Your task to perform on an android device: turn off smart reply in the gmail app Image 0: 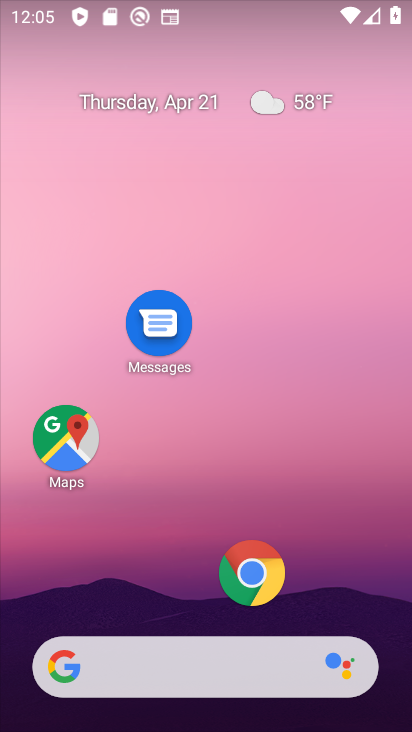
Step 0: drag from (162, 587) to (123, 79)
Your task to perform on an android device: turn off smart reply in the gmail app Image 1: 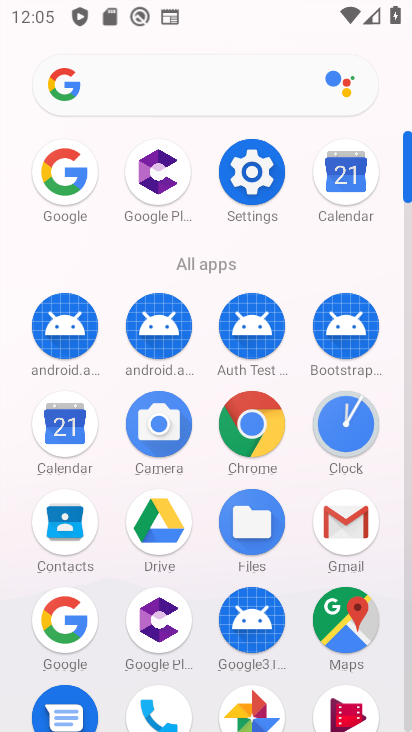
Step 1: click (347, 517)
Your task to perform on an android device: turn off smart reply in the gmail app Image 2: 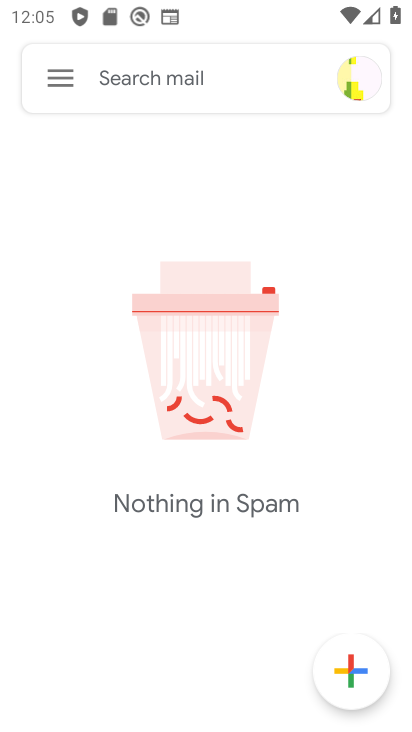
Step 2: click (54, 87)
Your task to perform on an android device: turn off smart reply in the gmail app Image 3: 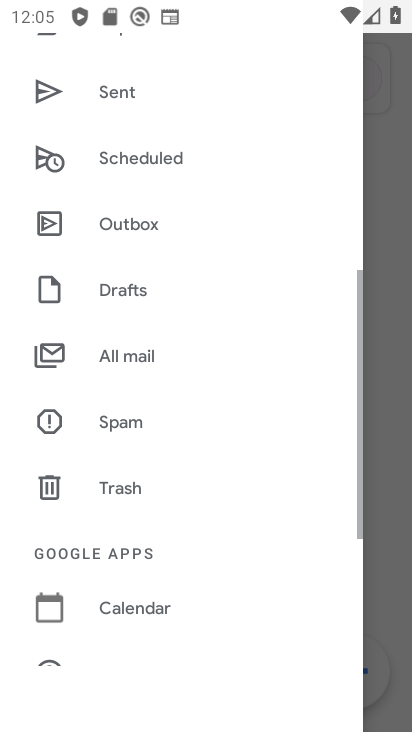
Step 3: drag from (150, 500) to (171, 190)
Your task to perform on an android device: turn off smart reply in the gmail app Image 4: 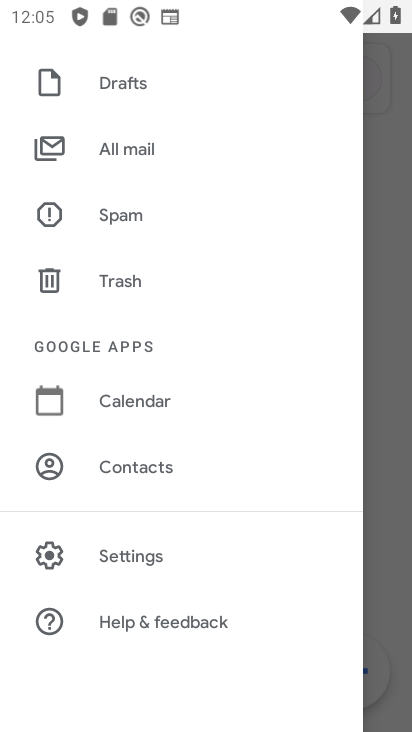
Step 4: click (117, 561)
Your task to perform on an android device: turn off smart reply in the gmail app Image 5: 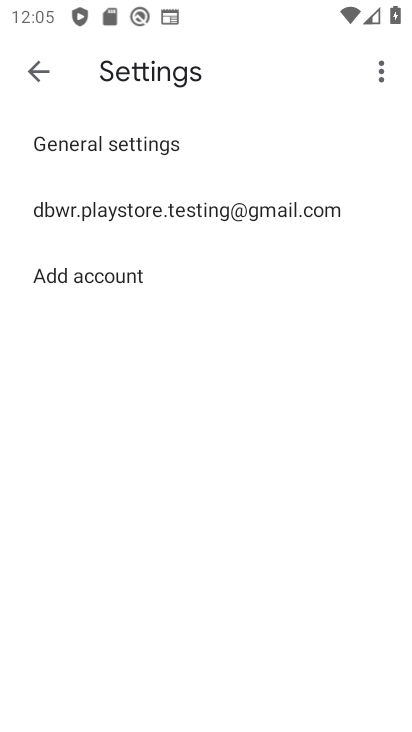
Step 5: click (105, 210)
Your task to perform on an android device: turn off smart reply in the gmail app Image 6: 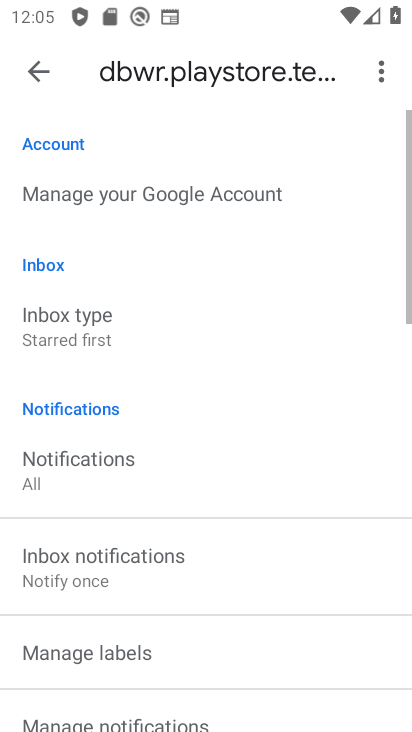
Step 6: drag from (240, 640) to (198, 211)
Your task to perform on an android device: turn off smart reply in the gmail app Image 7: 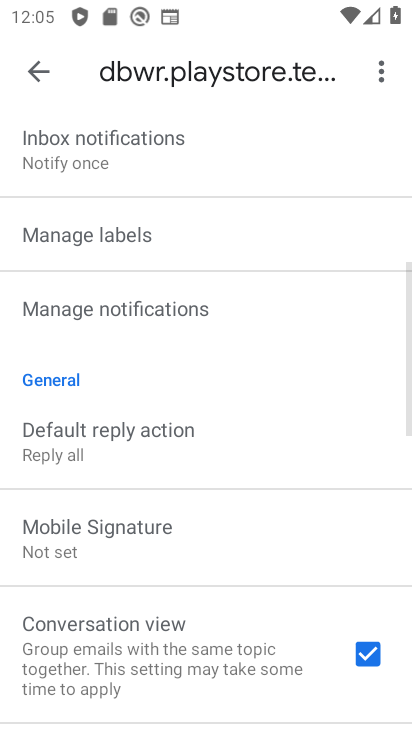
Step 7: drag from (205, 660) to (192, 281)
Your task to perform on an android device: turn off smart reply in the gmail app Image 8: 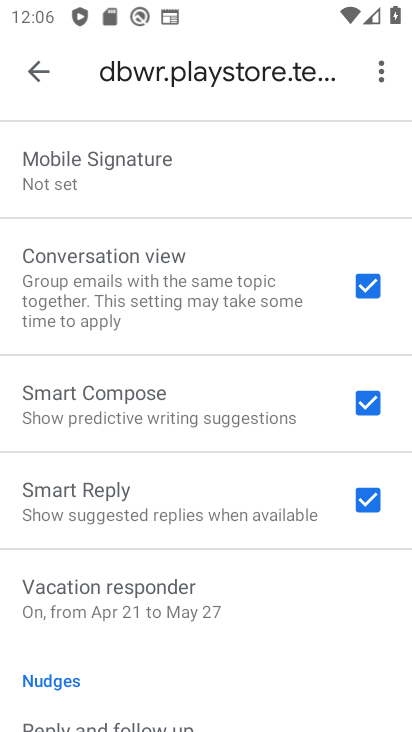
Step 8: click (374, 499)
Your task to perform on an android device: turn off smart reply in the gmail app Image 9: 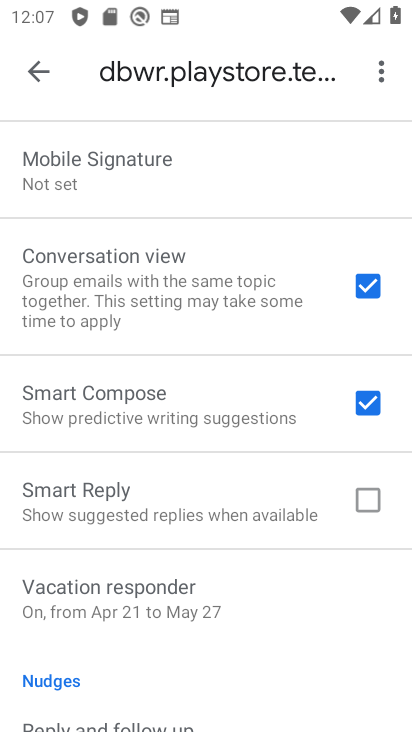
Step 9: task complete